Your task to perform on an android device: change the clock style Image 0: 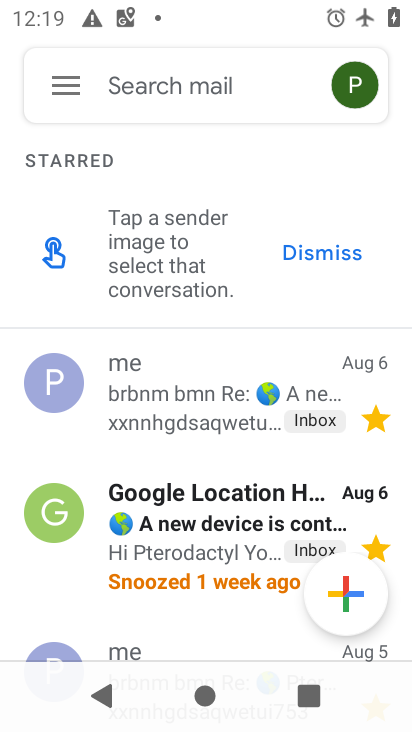
Step 0: press back button
Your task to perform on an android device: change the clock style Image 1: 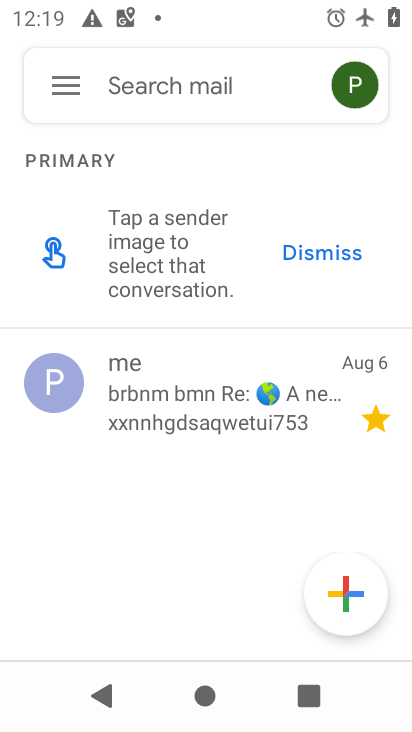
Step 1: press back button
Your task to perform on an android device: change the clock style Image 2: 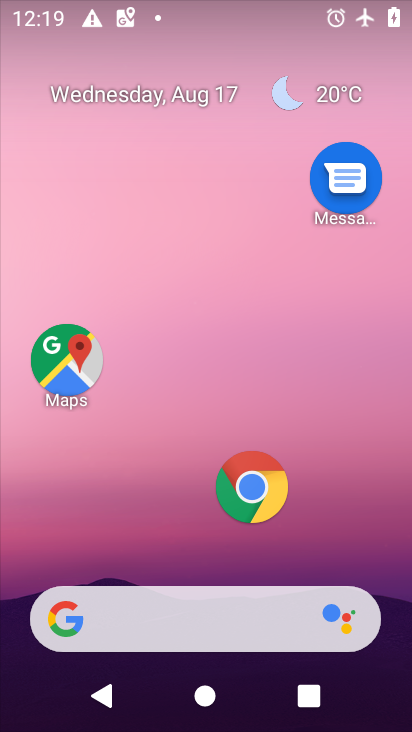
Step 2: drag from (134, 450) to (210, 0)
Your task to perform on an android device: change the clock style Image 3: 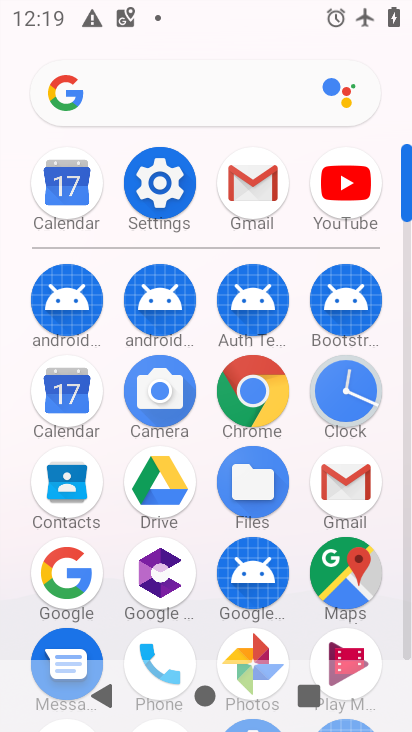
Step 3: click (338, 402)
Your task to perform on an android device: change the clock style Image 4: 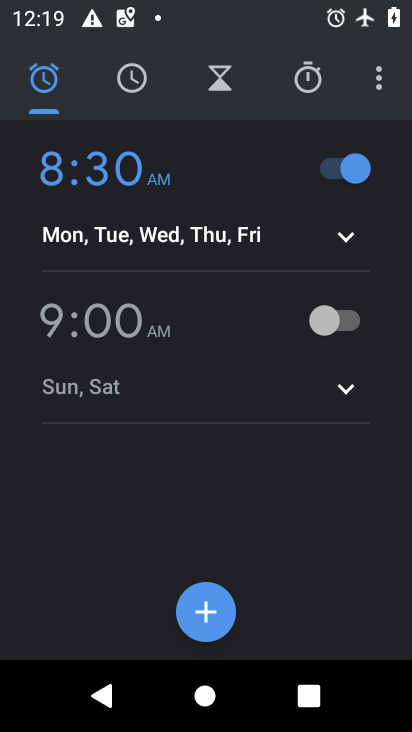
Step 4: click (380, 80)
Your task to perform on an android device: change the clock style Image 5: 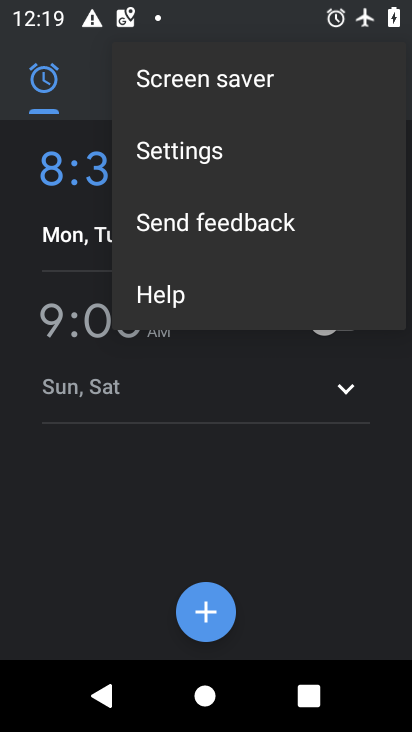
Step 5: click (156, 163)
Your task to perform on an android device: change the clock style Image 6: 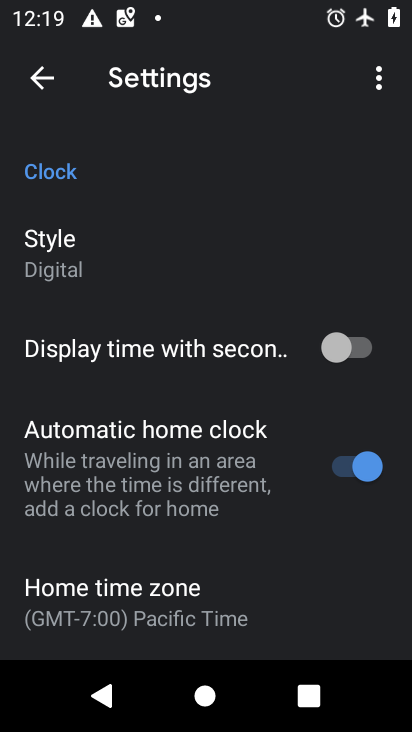
Step 6: click (90, 256)
Your task to perform on an android device: change the clock style Image 7: 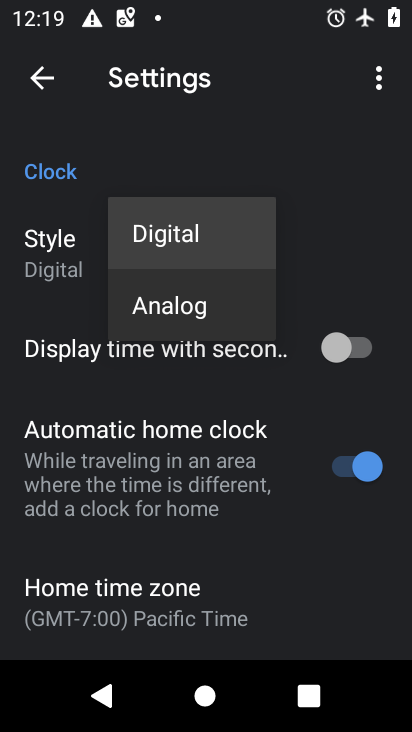
Step 7: click (159, 301)
Your task to perform on an android device: change the clock style Image 8: 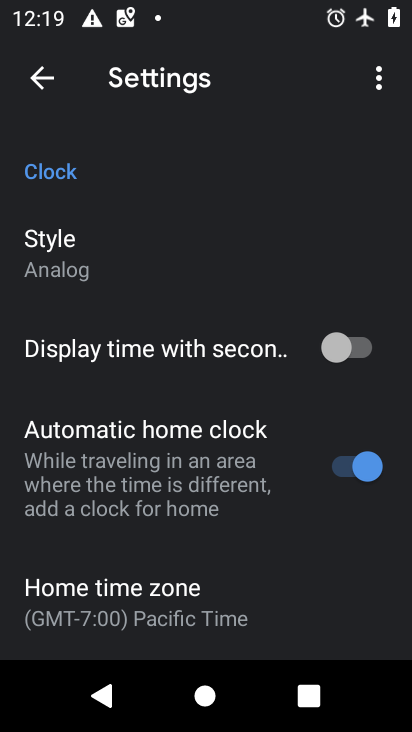
Step 8: task complete